Your task to perform on an android device: Go to Google Image 0: 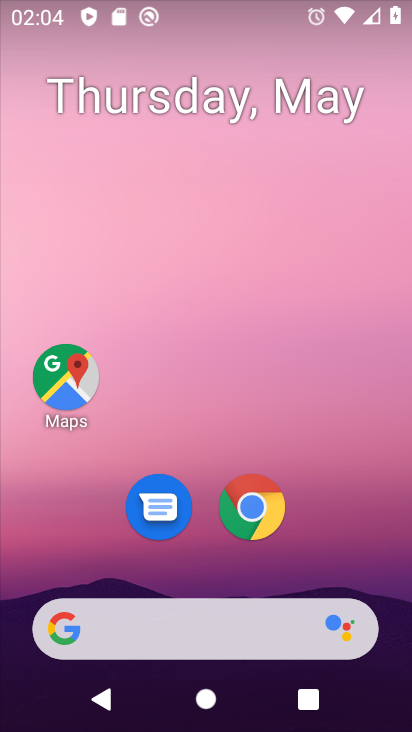
Step 0: click (273, 627)
Your task to perform on an android device: Go to Google Image 1: 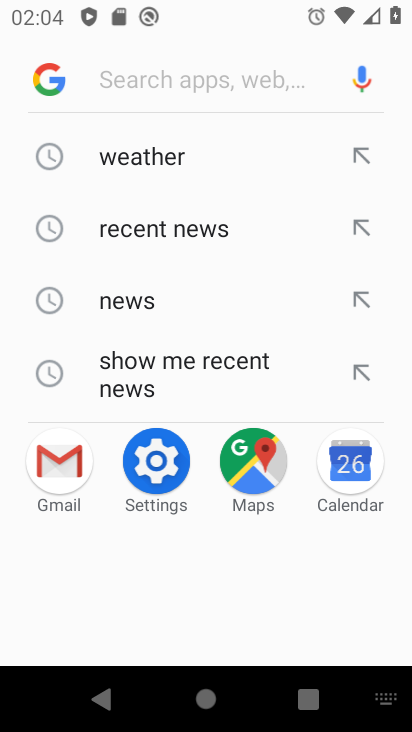
Step 1: type "googlecom"
Your task to perform on an android device: Go to Google Image 2: 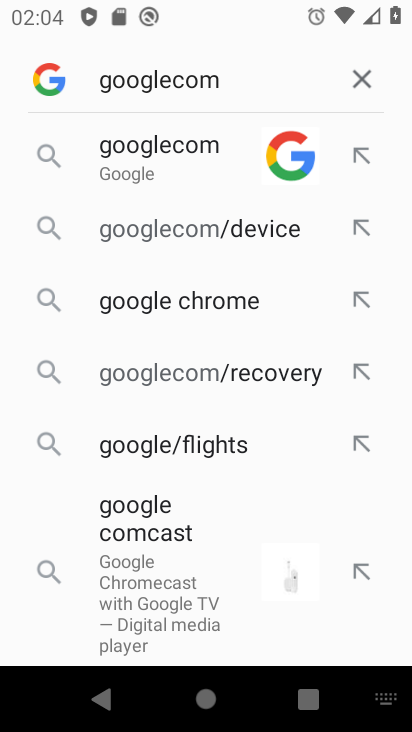
Step 2: click (153, 231)
Your task to perform on an android device: Go to Google Image 3: 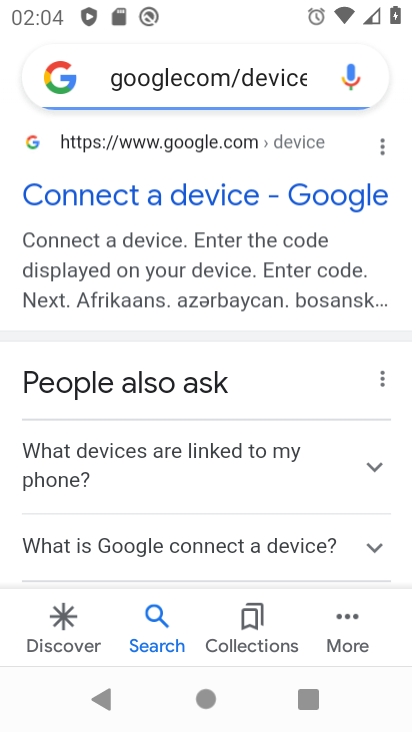
Step 3: task complete